Your task to perform on an android device: Show me the alarms in the clock app Image 0: 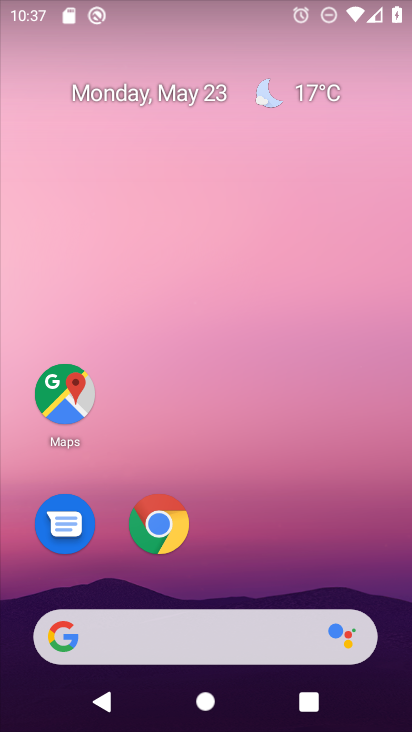
Step 0: drag from (228, 571) to (228, 129)
Your task to perform on an android device: Show me the alarms in the clock app Image 1: 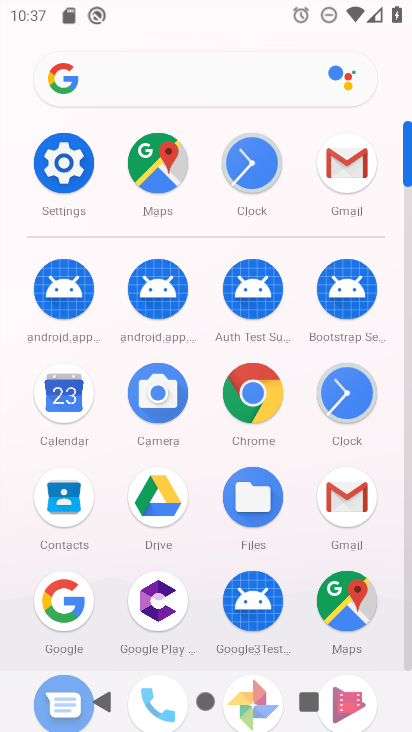
Step 1: click (234, 150)
Your task to perform on an android device: Show me the alarms in the clock app Image 2: 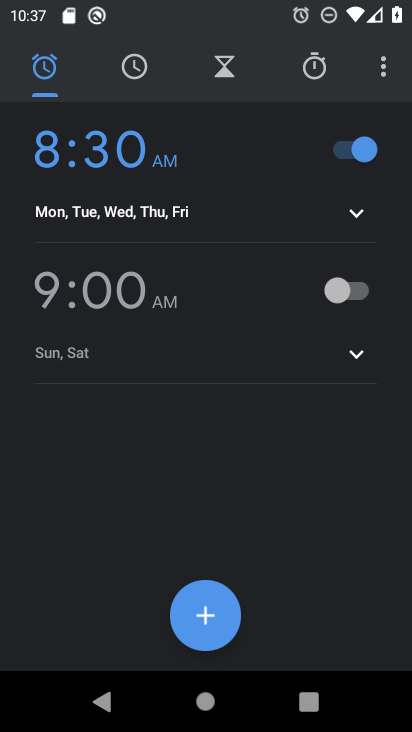
Step 2: click (373, 64)
Your task to perform on an android device: Show me the alarms in the clock app Image 3: 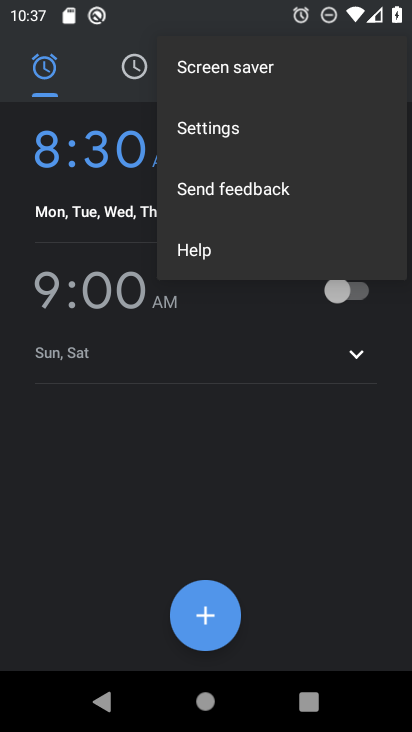
Step 3: click (80, 515)
Your task to perform on an android device: Show me the alarms in the clock app Image 4: 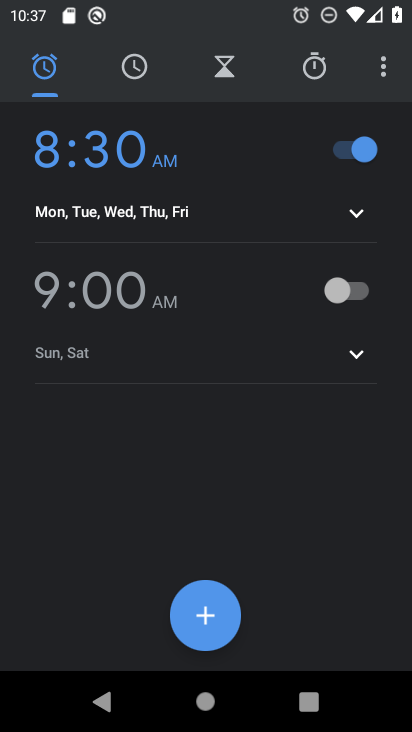
Step 4: task complete